Your task to perform on an android device: Open Android settings Image 0: 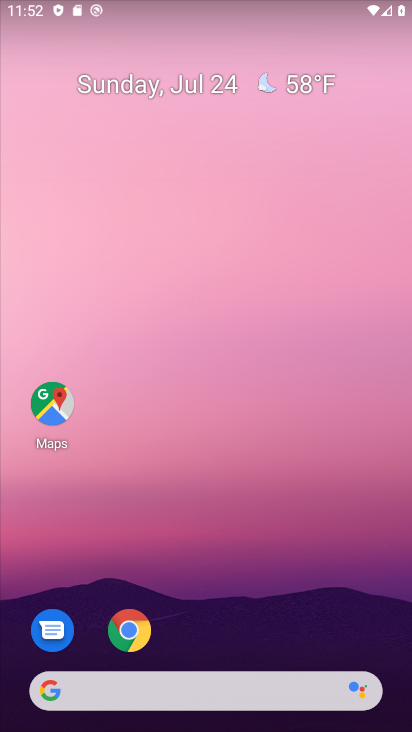
Step 0: drag from (286, 645) to (290, 35)
Your task to perform on an android device: Open Android settings Image 1: 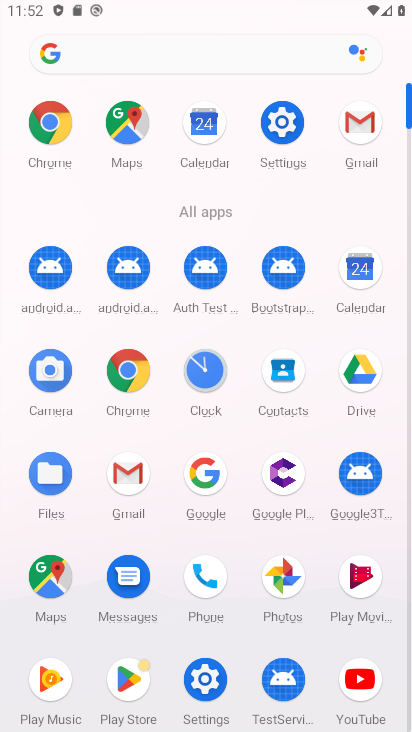
Step 1: click (280, 117)
Your task to perform on an android device: Open Android settings Image 2: 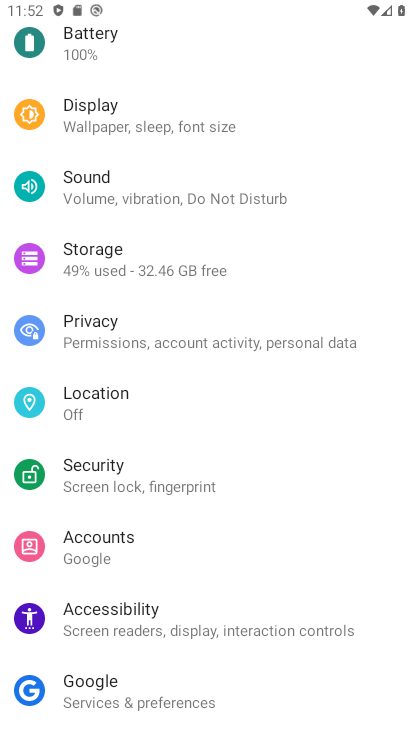
Step 2: task complete